Your task to perform on an android device: create a new album in the google photos Image 0: 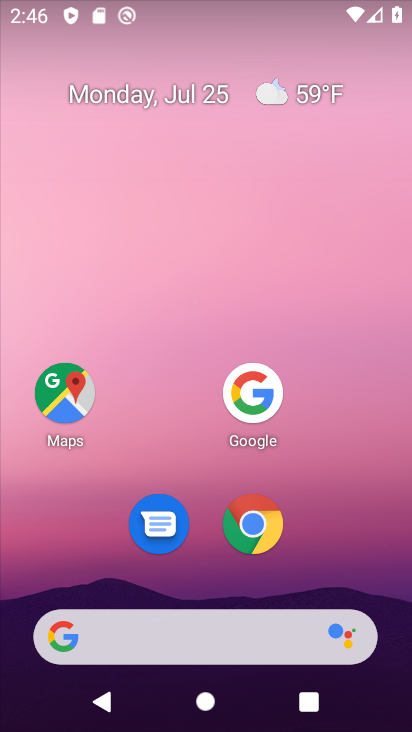
Step 0: press home button
Your task to perform on an android device: create a new album in the google photos Image 1: 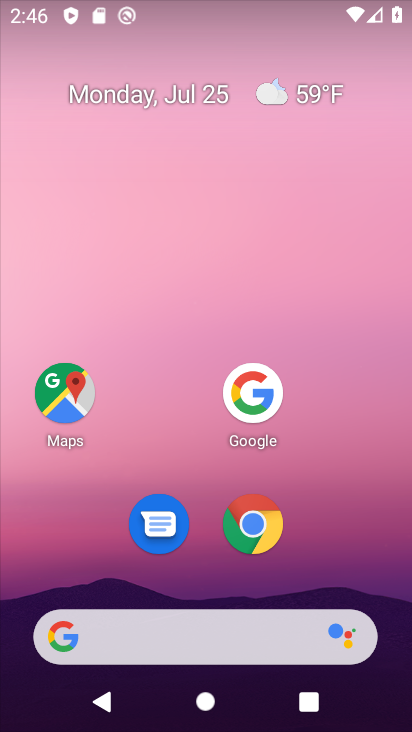
Step 1: drag from (168, 632) to (341, 34)
Your task to perform on an android device: create a new album in the google photos Image 2: 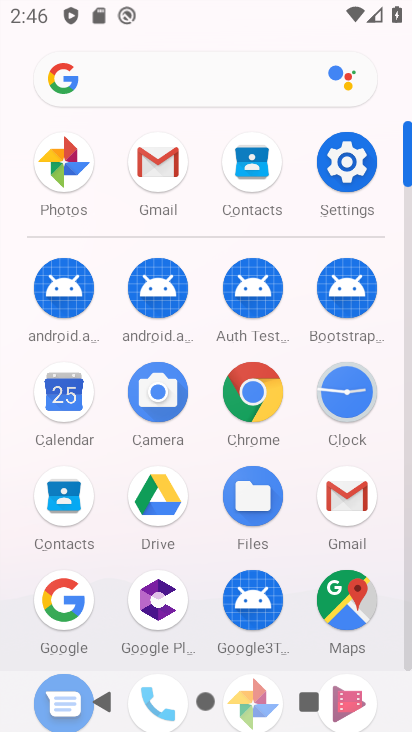
Step 2: click (79, 172)
Your task to perform on an android device: create a new album in the google photos Image 3: 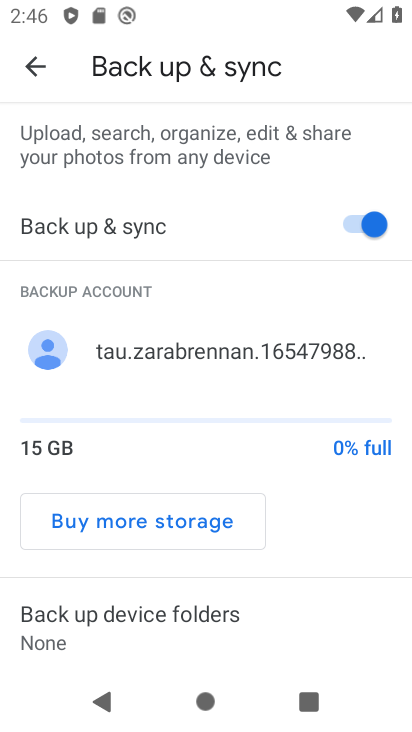
Step 3: click (40, 64)
Your task to perform on an android device: create a new album in the google photos Image 4: 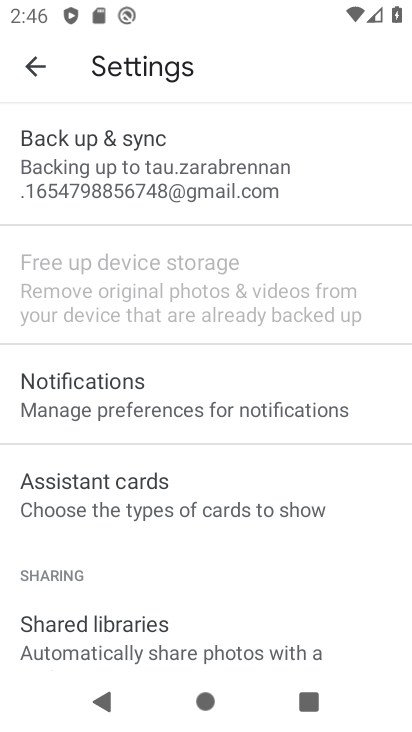
Step 4: click (40, 66)
Your task to perform on an android device: create a new album in the google photos Image 5: 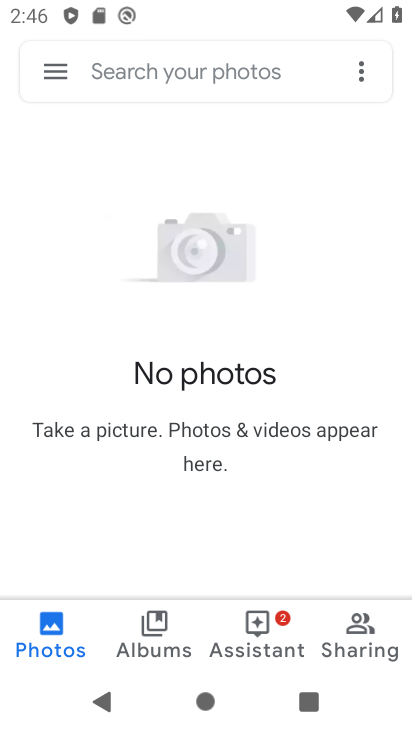
Step 5: click (152, 617)
Your task to perform on an android device: create a new album in the google photos Image 6: 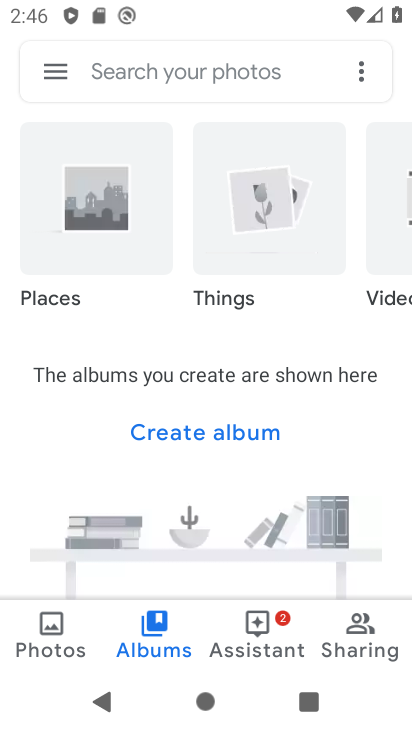
Step 6: task complete